Your task to perform on an android device: Install the News app Image 0: 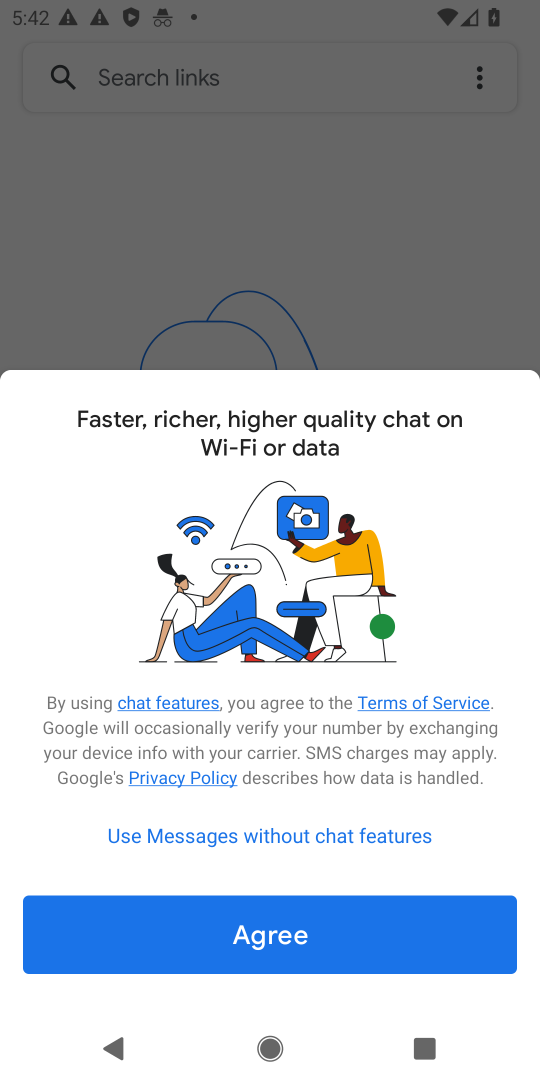
Step 0: press home button
Your task to perform on an android device: Install the News app Image 1: 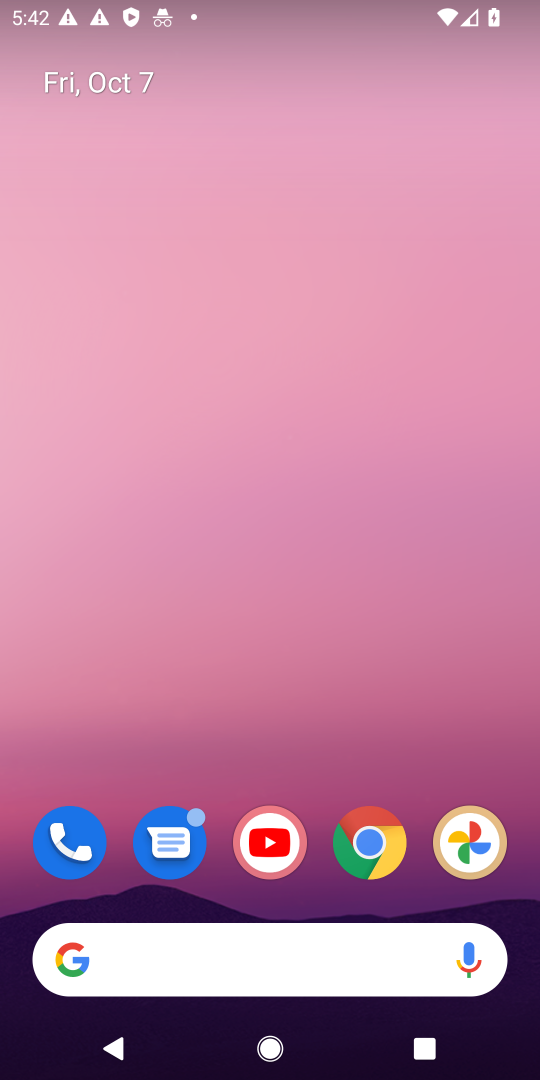
Step 1: click (249, 947)
Your task to perform on an android device: Install the News app Image 2: 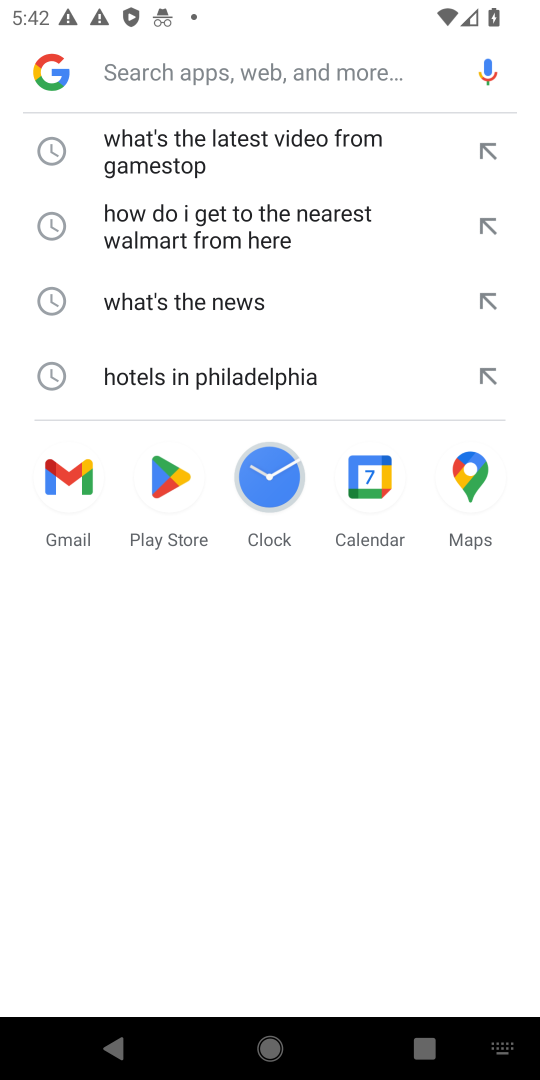
Step 2: press home button
Your task to perform on an android device: Install the News app Image 3: 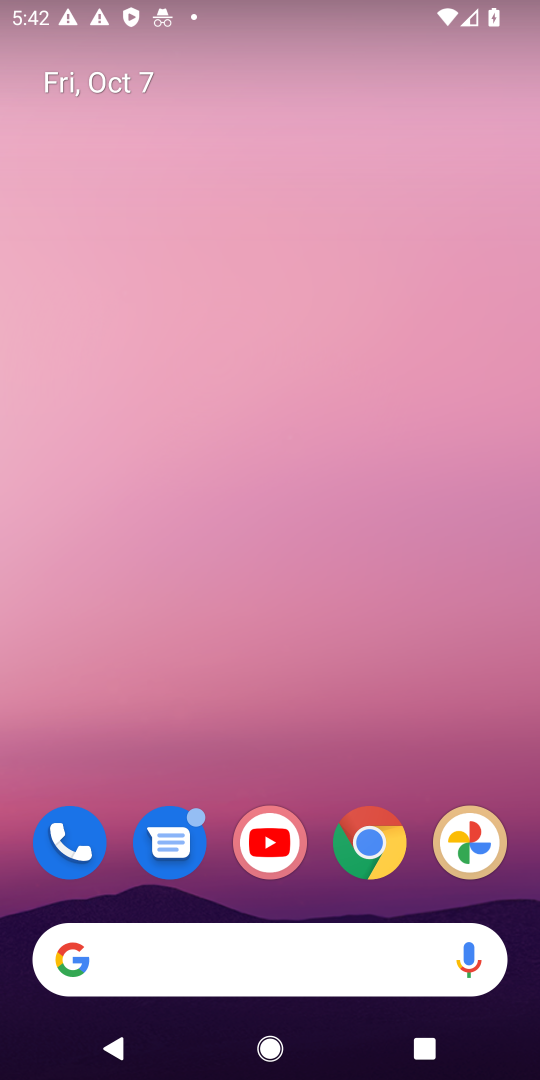
Step 3: drag from (319, 899) to (319, 101)
Your task to perform on an android device: Install the News app Image 4: 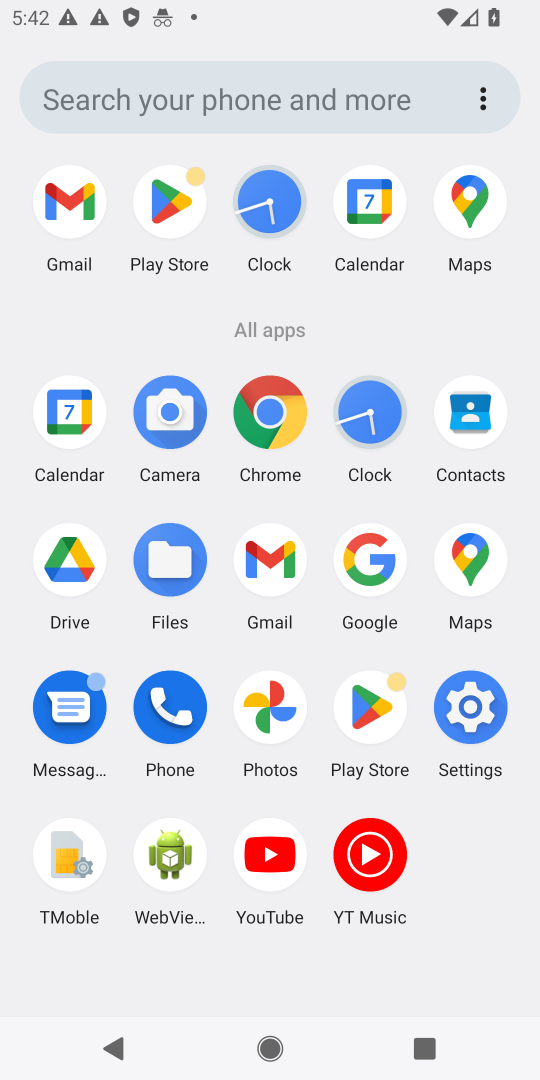
Step 4: click (186, 197)
Your task to perform on an android device: Install the News app Image 5: 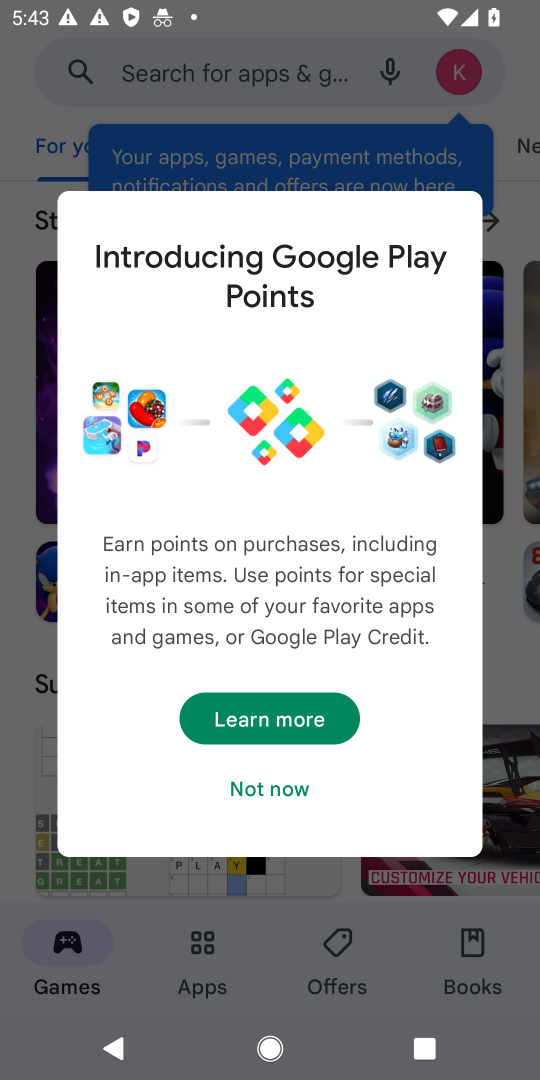
Step 5: click (208, 140)
Your task to perform on an android device: Install the News app Image 6: 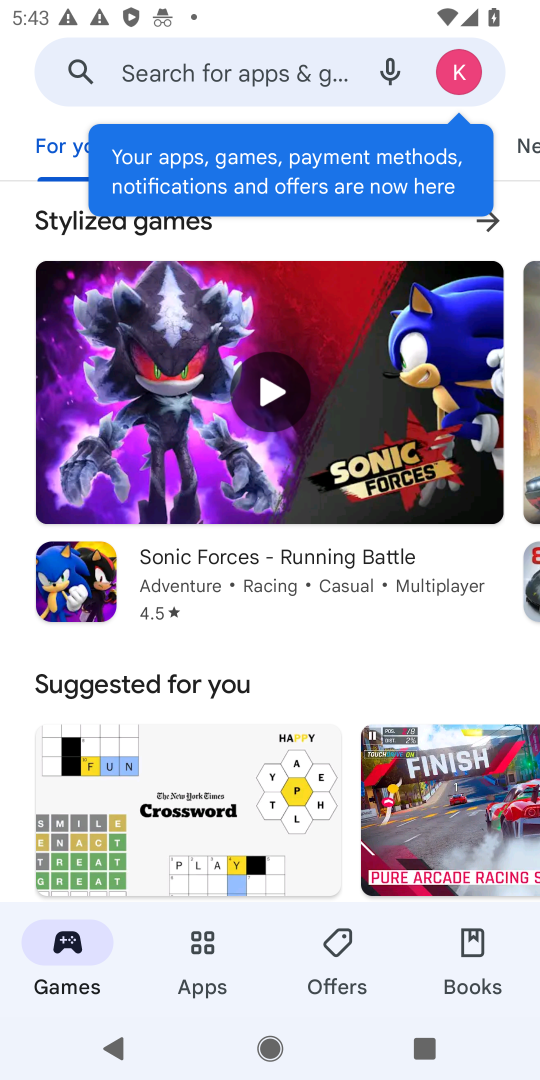
Step 6: click (226, 955)
Your task to perform on an android device: Install the News app Image 7: 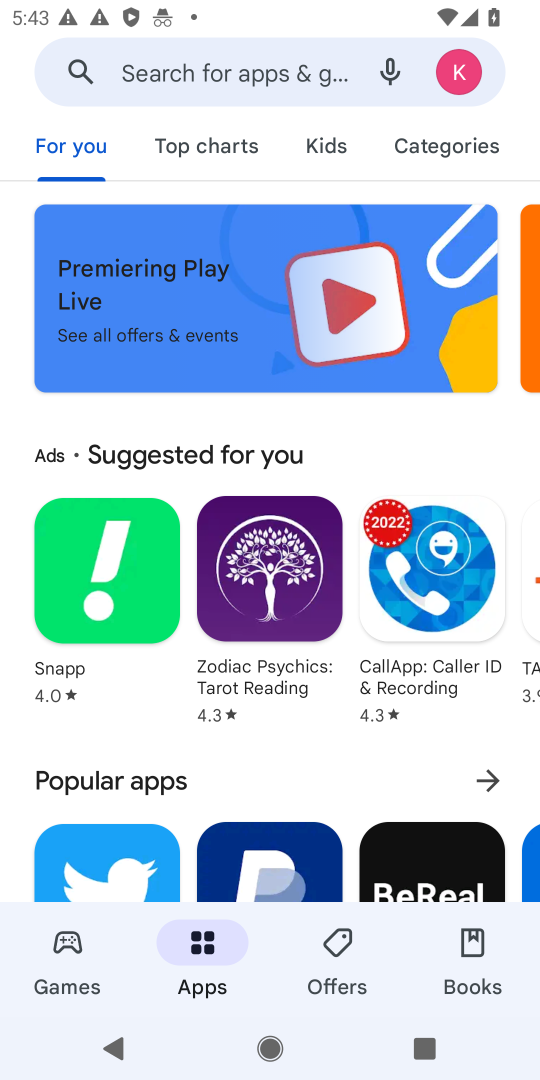
Step 7: click (185, 92)
Your task to perform on an android device: Install the News app Image 8: 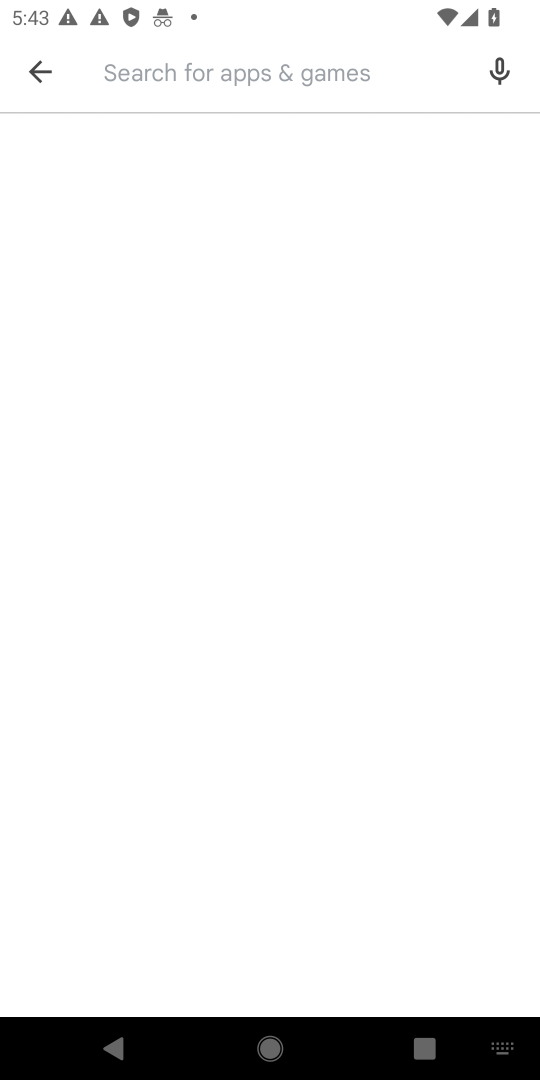
Step 8: click (172, 78)
Your task to perform on an android device: Install the News app Image 9: 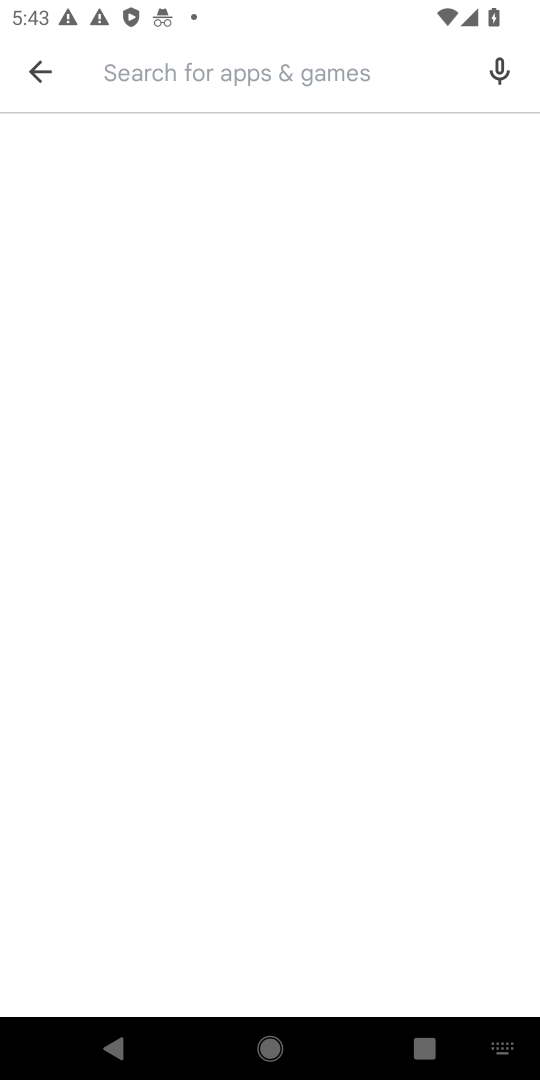
Step 9: type "News app"
Your task to perform on an android device: Install the News app Image 10: 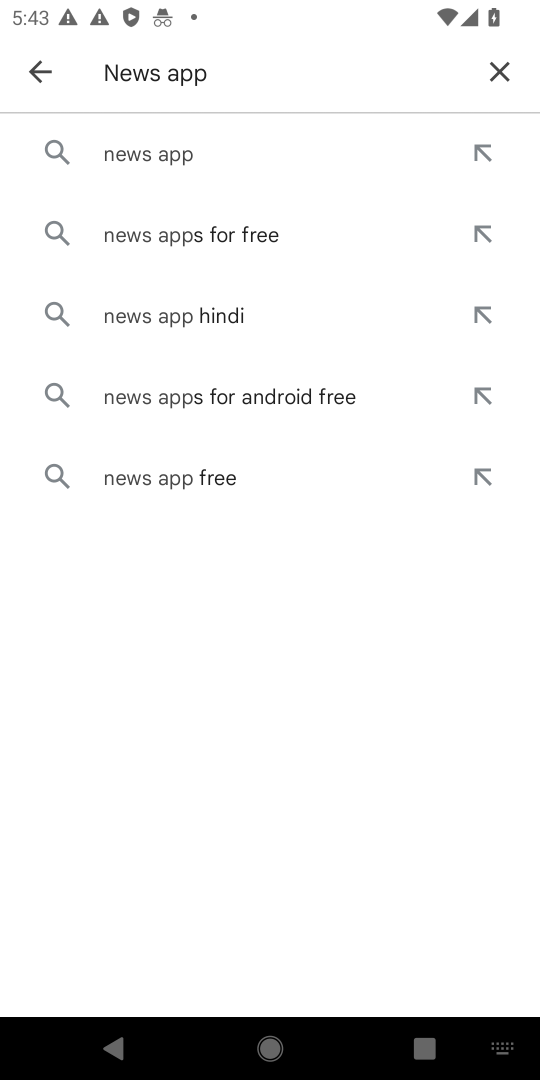
Step 10: click (174, 162)
Your task to perform on an android device: Install the News app Image 11: 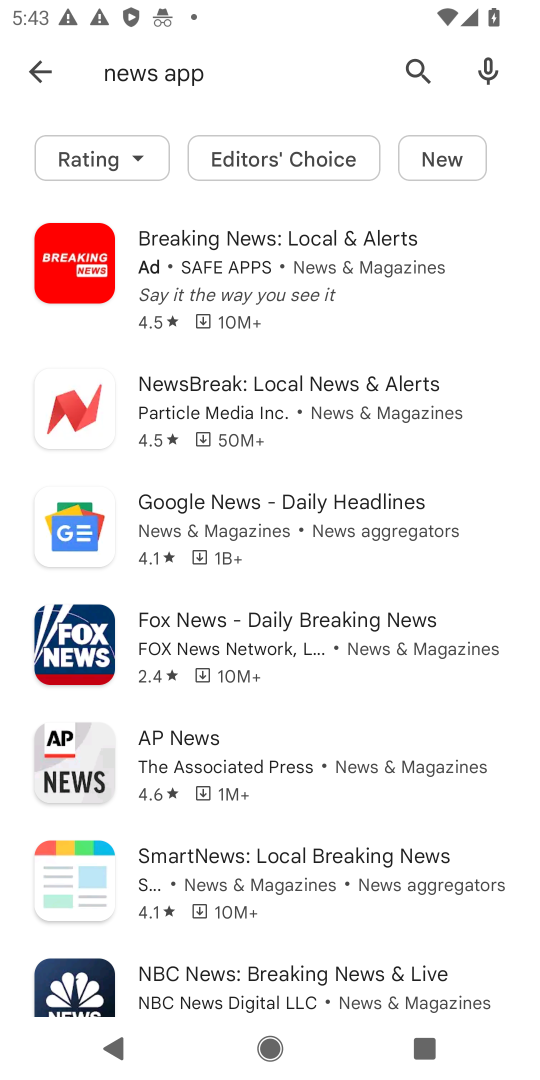
Step 11: click (363, 275)
Your task to perform on an android device: Install the News app Image 12: 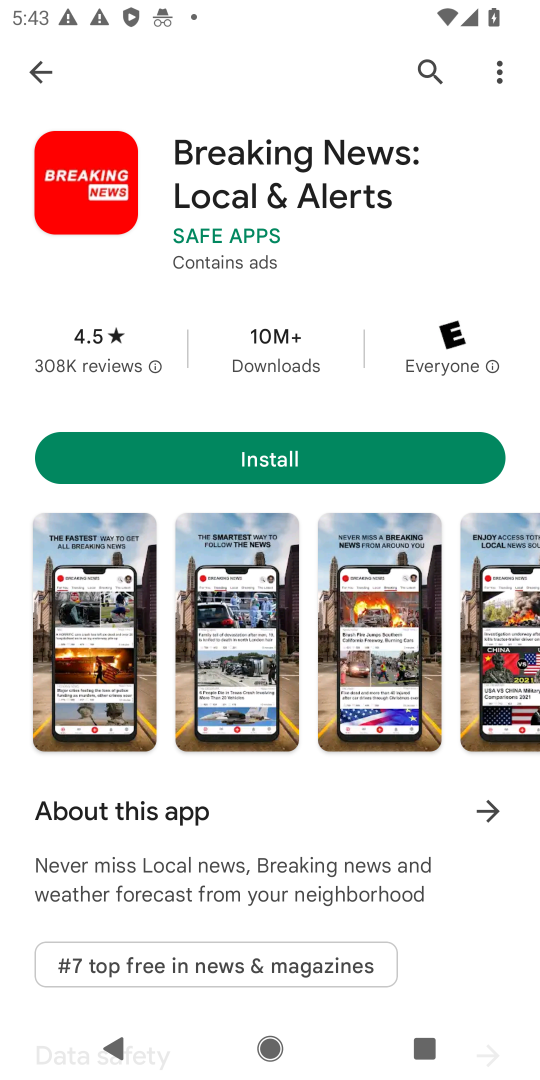
Step 12: click (266, 464)
Your task to perform on an android device: Install the News app Image 13: 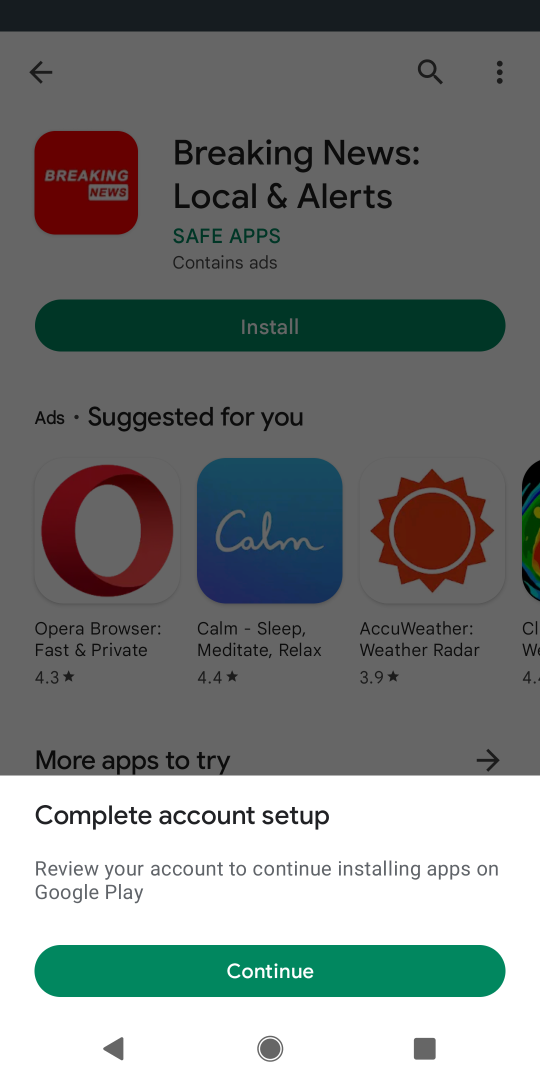
Step 13: click (272, 993)
Your task to perform on an android device: Install the News app Image 14: 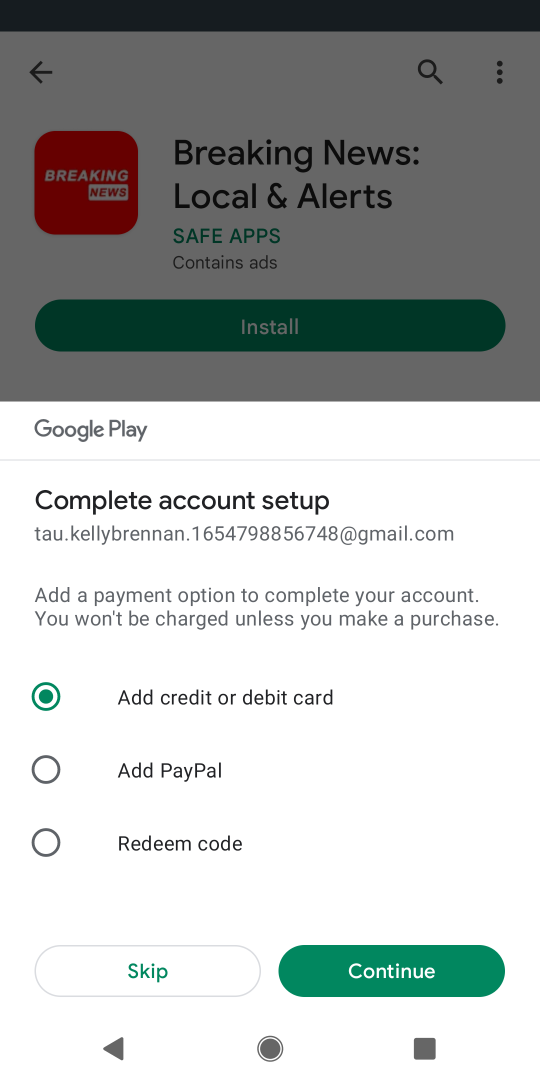
Step 14: click (202, 966)
Your task to perform on an android device: Install the News app Image 15: 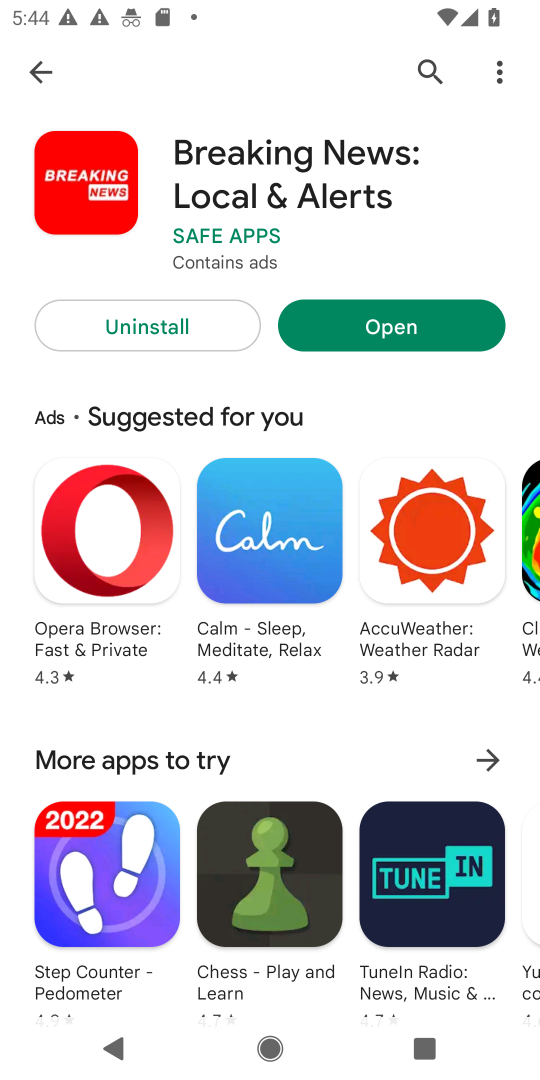
Step 15: task complete